Your task to perform on an android device: Open calendar and show me the third week of next month Image 0: 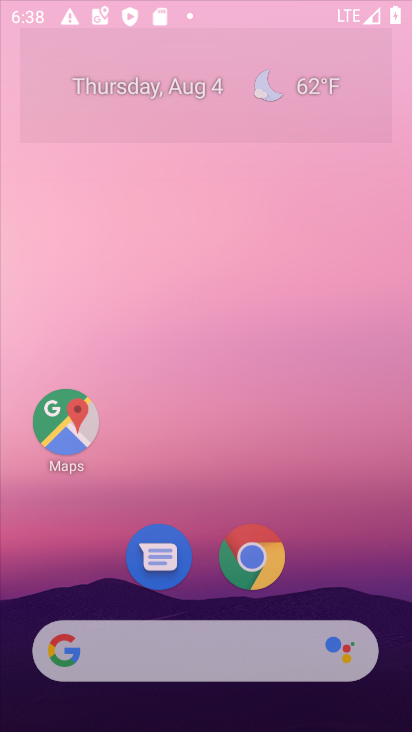
Step 0: press home button
Your task to perform on an android device: Open calendar and show me the third week of next month Image 1: 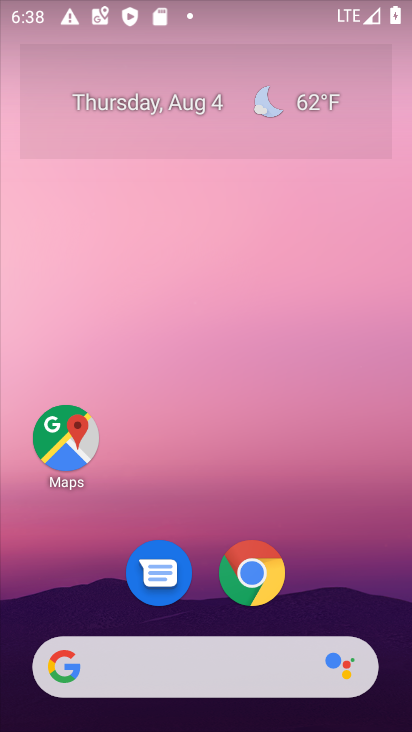
Step 1: drag from (197, 617) to (275, 84)
Your task to perform on an android device: Open calendar and show me the third week of next month Image 2: 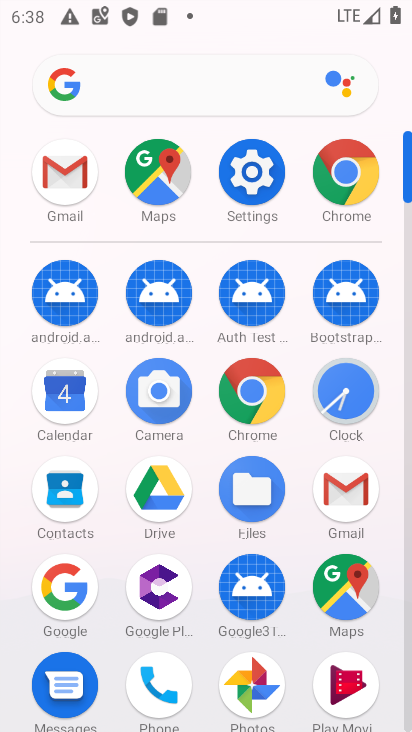
Step 2: click (59, 402)
Your task to perform on an android device: Open calendar and show me the third week of next month Image 3: 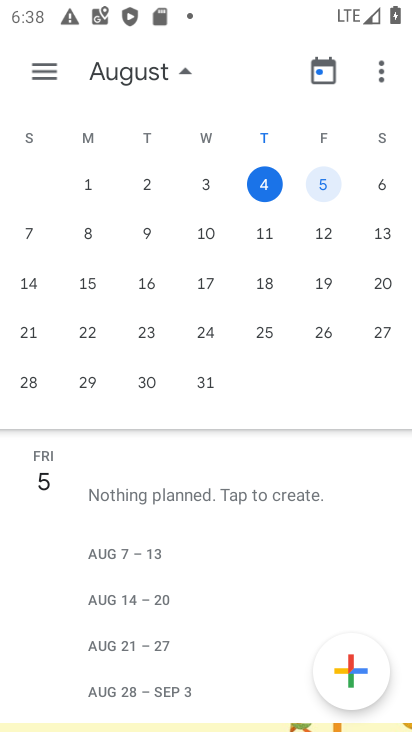
Step 3: drag from (316, 261) to (0, 231)
Your task to perform on an android device: Open calendar and show me the third week of next month Image 4: 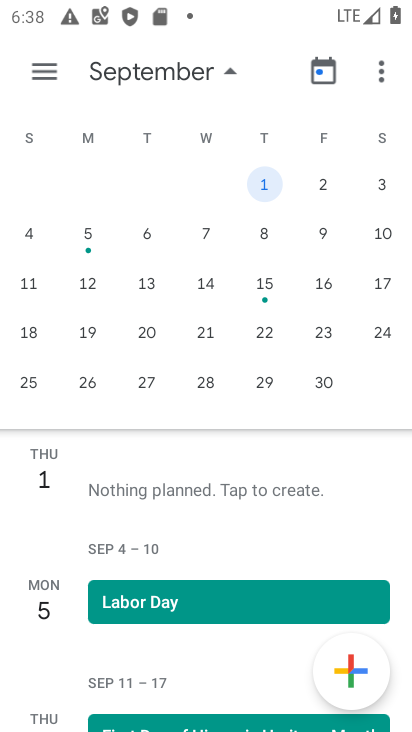
Step 4: click (21, 289)
Your task to perform on an android device: Open calendar and show me the third week of next month Image 5: 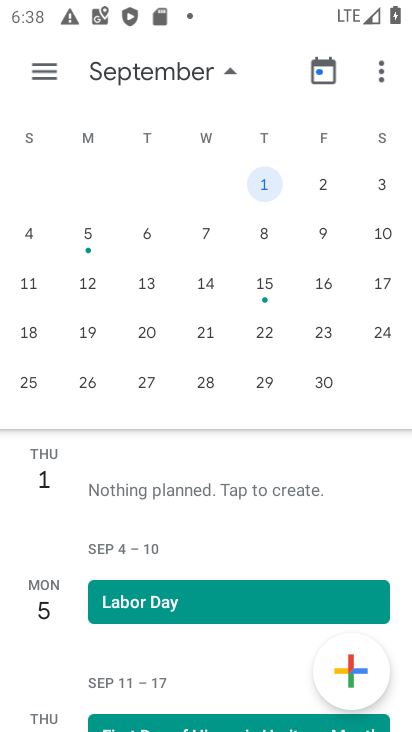
Step 5: click (25, 290)
Your task to perform on an android device: Open calendar and show me the third week of next month Image 6: 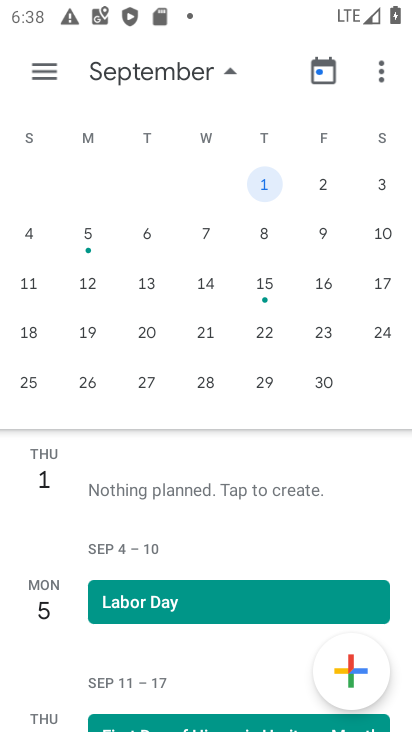
Step 6: click (28, 288)
Your task to perform on an android device: Open calendar and show me the third week of next month Image 7: 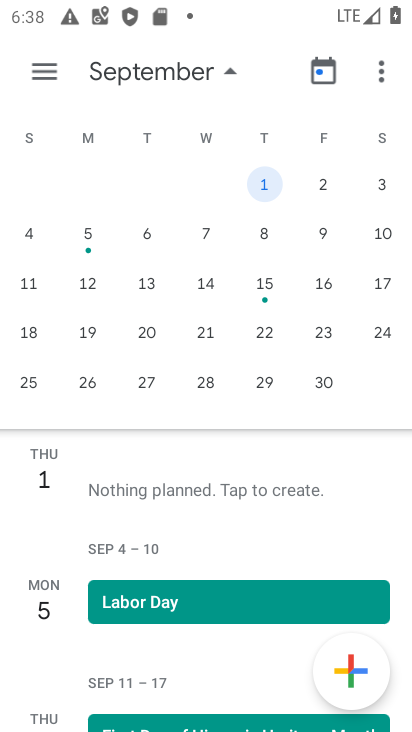
Step 7: click (86, 283)
Your task to perform on an android device: Open calendar and show me the third week of next month Image 8: 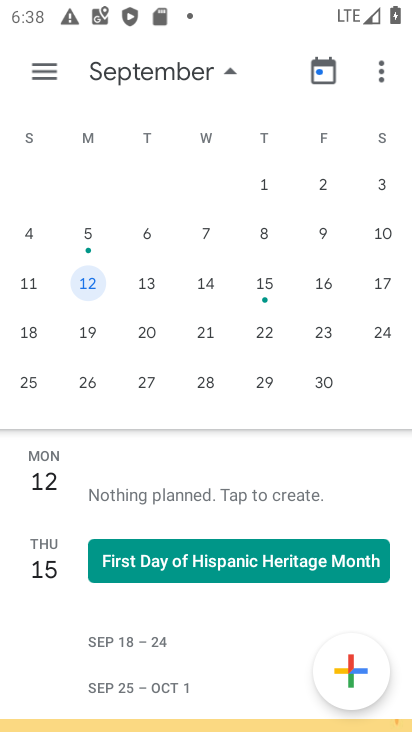
Step 8: click (138, 281)
Your task to perform on an android device: Open calendar and show me the third week of next month Image 9: 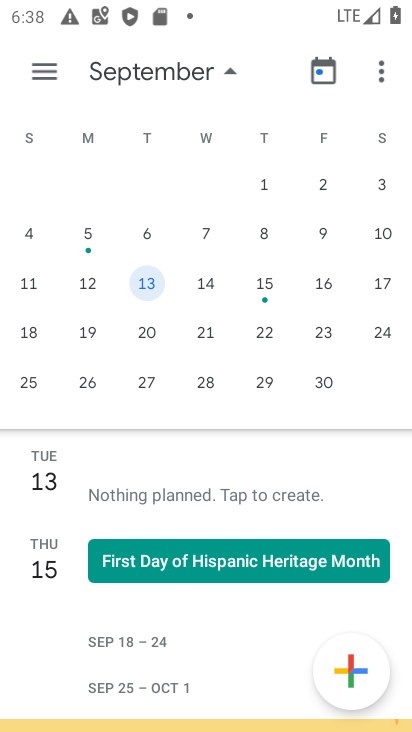
Step 9: click (195, 292)
Your task to perform on an android device: Open calendar and show me the third week of next month Image 10: 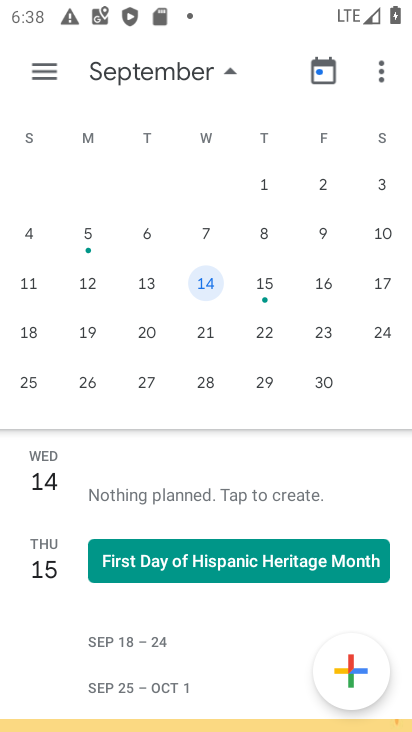
Step 10: click (263, 287)
Your task to perform on an android device: Open calendar and show me the third week of next month Image 11: 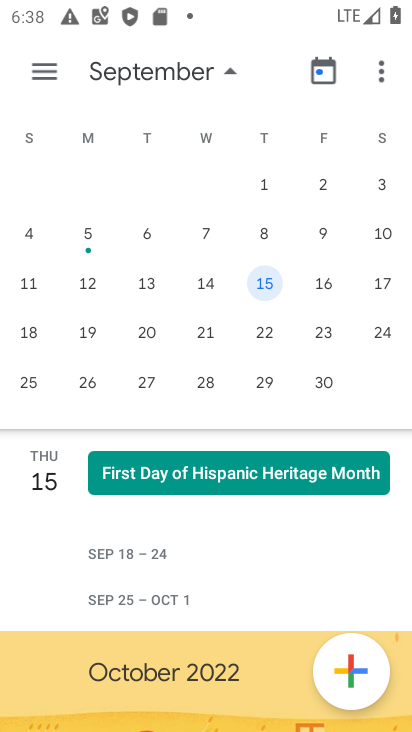
Step 11: click (327, 283)
Your task to perform on an android device: Open calendar and show me the third week of next month Image 12: 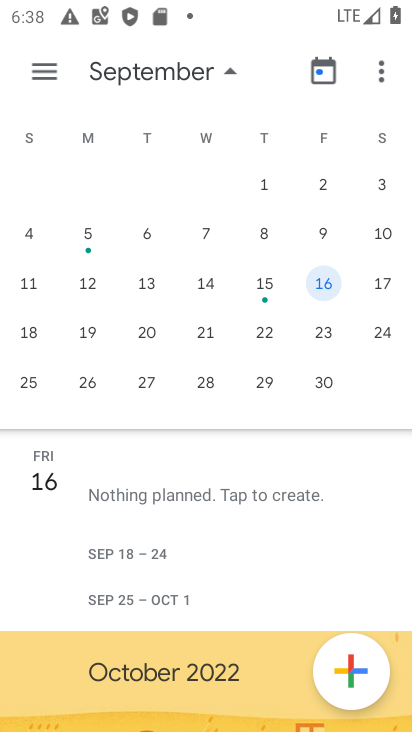
Step 12: click (388, 281)
Your task to perform on an android device: Open calendar and show me the third week of next month Image 13: 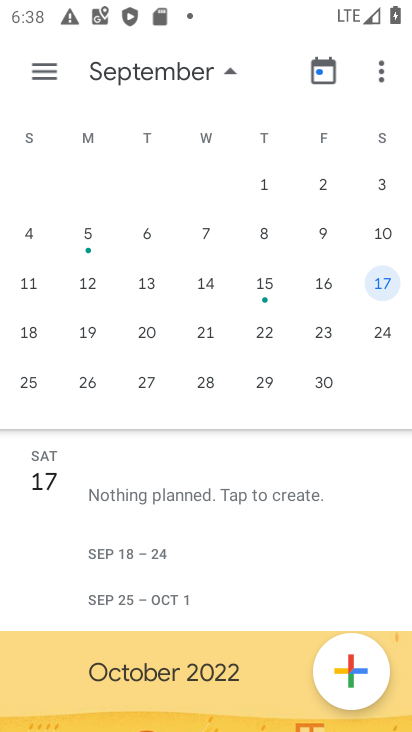
Step 13: task complete